Your task to perform on an android device: toggle javascript in the chrome app Image 0: 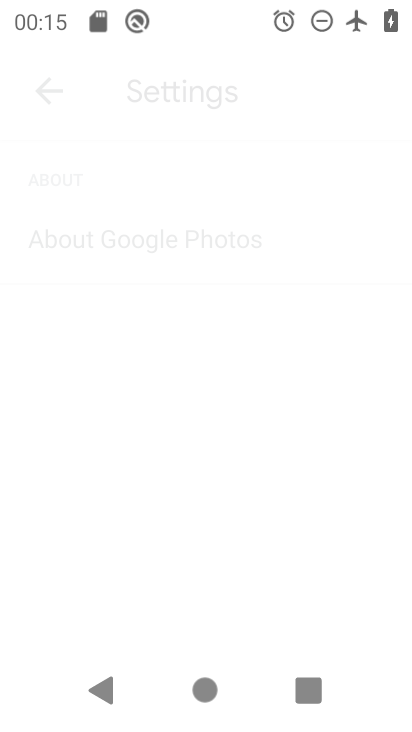
Step 0: drag from (239, 510) to (244, 173)
Your task to perform on an android device: toggle javascript in the chrome app Image 1: 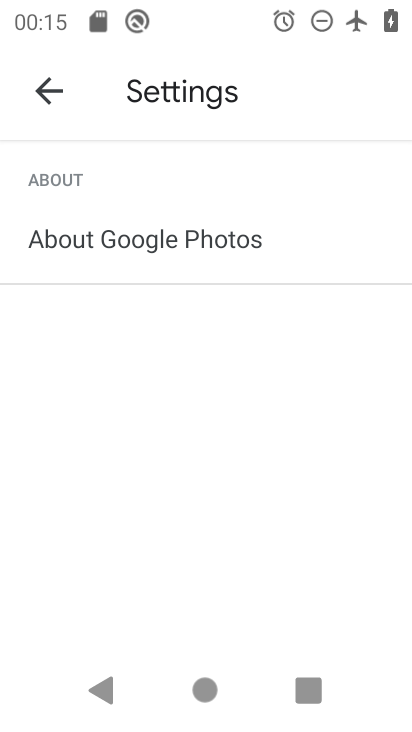
Step 1: press home button
Your task to perform on an android device: toggle javascript in the chrome app Image 2: 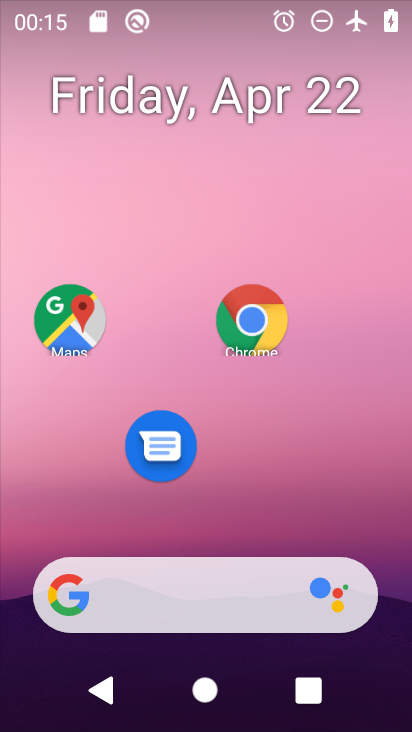
Step 2: drag from (241, 500) to (271, 143)
Your task to perform on an android device: toggle javascript in the chrome app Image 3: 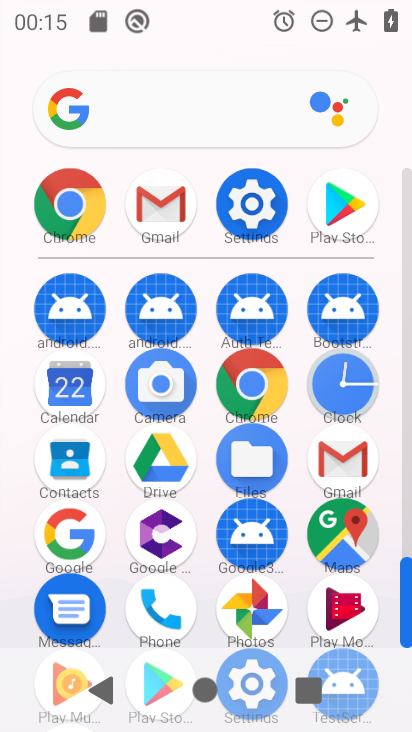
Step 3: click (241, 376)
Your task to perform on an android device: toggle javascript in the chrome app Image 4: 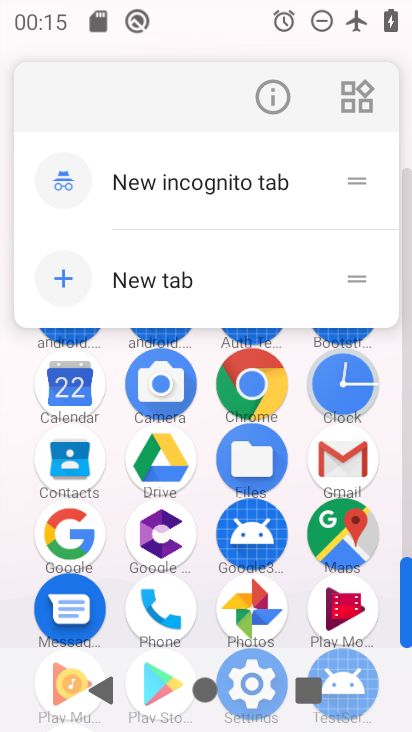
Step 4: click (267, 94)
Your task to perform on an android device: toggle javascript in the chrome app Image 5: 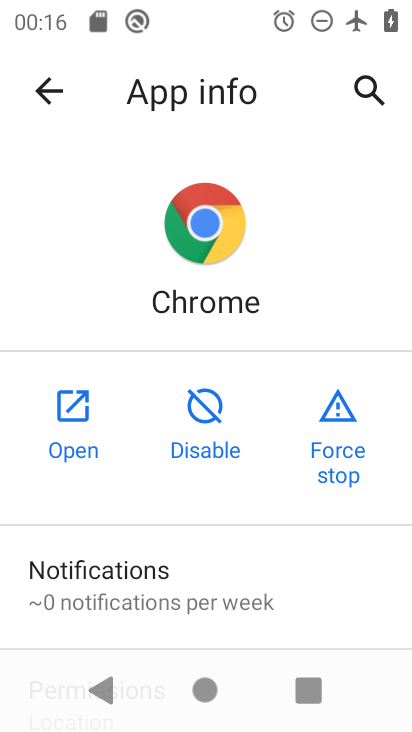
Step 5: drag from (32, 433) to (72, 436)
Your task to perform on an android device: toggle javascript in the chrome app Image 6: 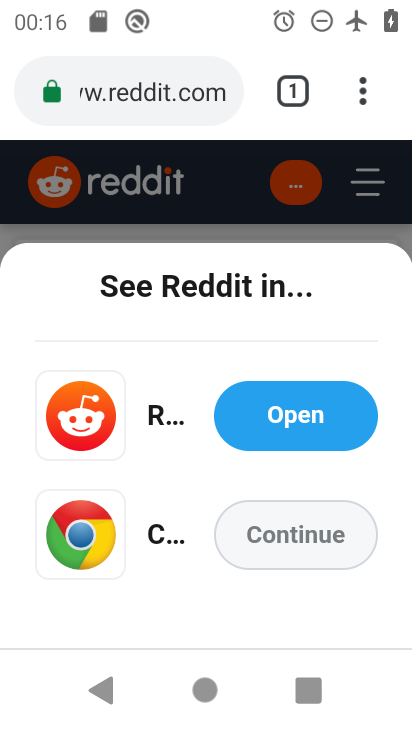
Step 6: drag from (194, 510) to (271, 2)
Your task to perform on an android device: toggle javascript in the chrome app Image 7: 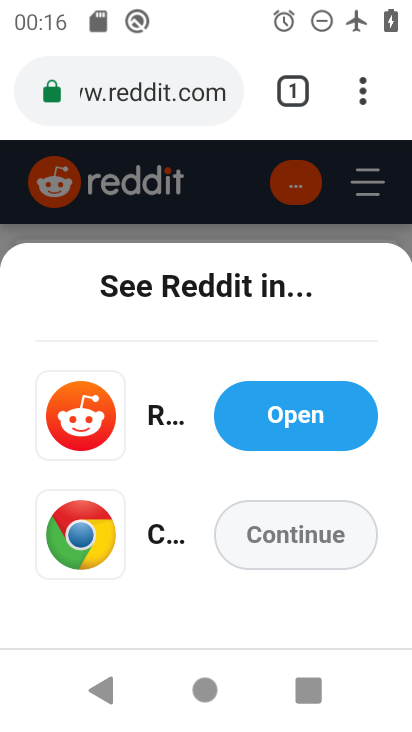
Step 7: drag from (197, 433) to (241, 231)
Your task to perform on an android device: toggle javascript in the chrome app Image 8: 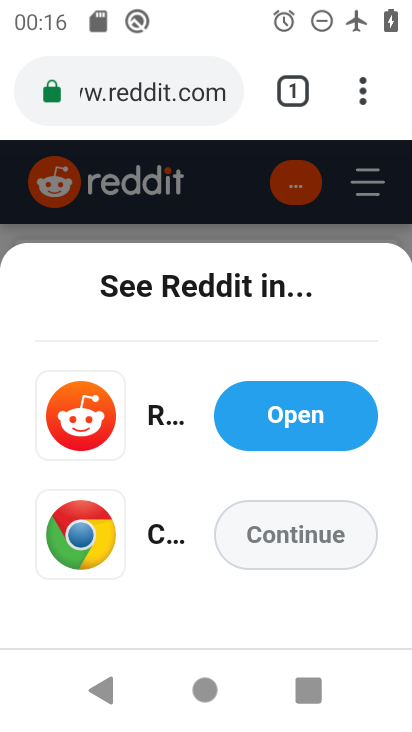
Step 8: drag from (359, 84) to (162, 468)
Your task to perform on an android device: toggle javascript in the chrome app Image 9: 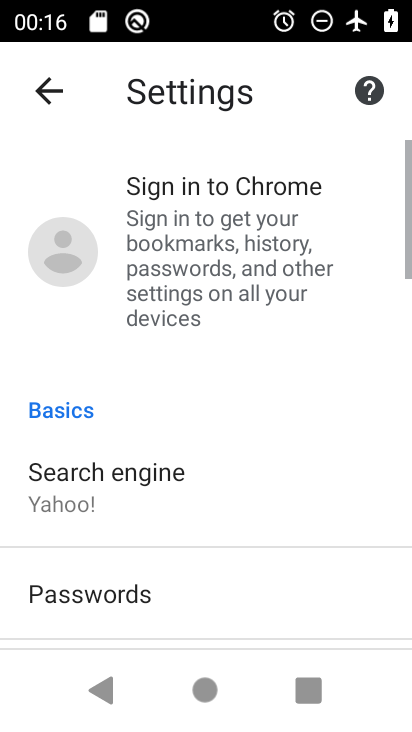
Step 9: drag from (162, 468) to (320, 29)
Your task to perform on an android device: toggle javascript in the chrome app Image 10: 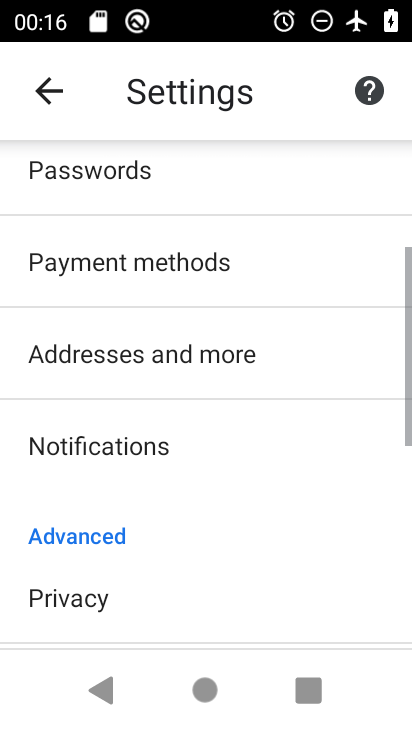
Step 10: drag from (141, 521) to (303, 69)
Your task to perform on an android device: toggle javascript in the chrome app Image 11: 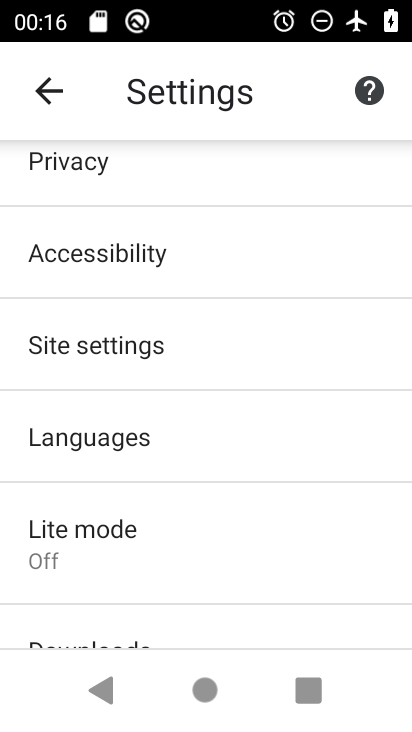
Step 11: click (167, 342)
Your task to perform on an android device: toggle javascript in the chrome app Image 12: 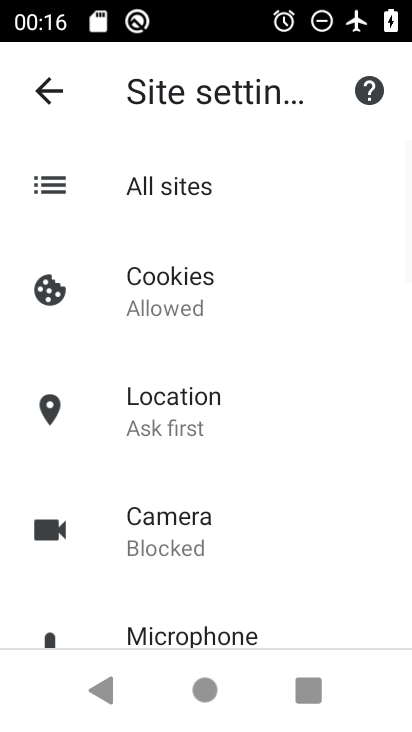
Step 12: drag from (264, 567) to (289, 8)
Your task to perform on an android device: toggle javascript in the chrome app Image 13: 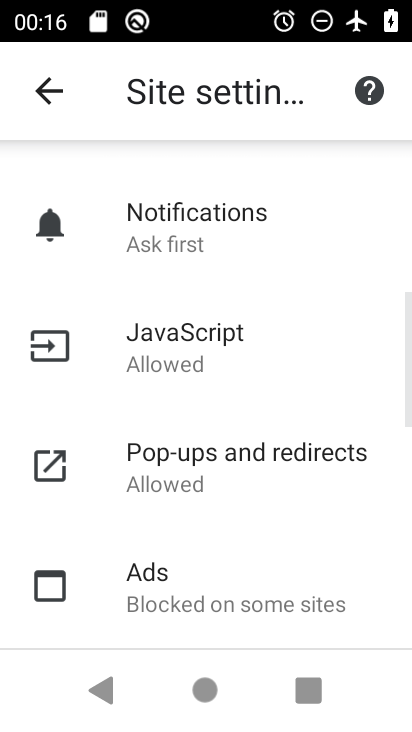
Step 13: click (207, 342)
Your task to perform on an android device: toggle javascript in the chrome app Image 14: 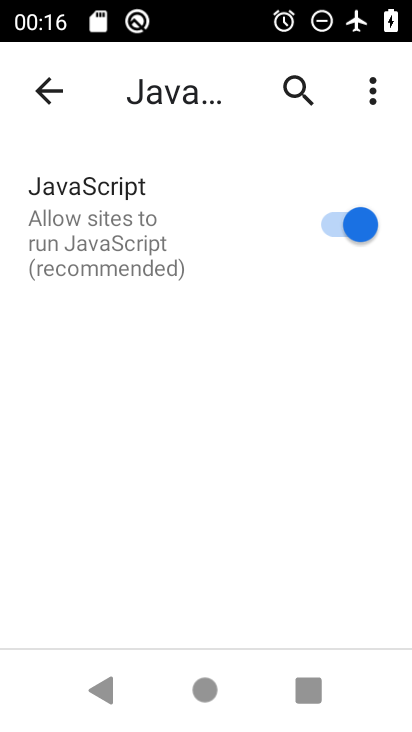
Step 14: click (331, 230)
Your task to perform on an android device: toggle javascript in the chrome app Image 15: 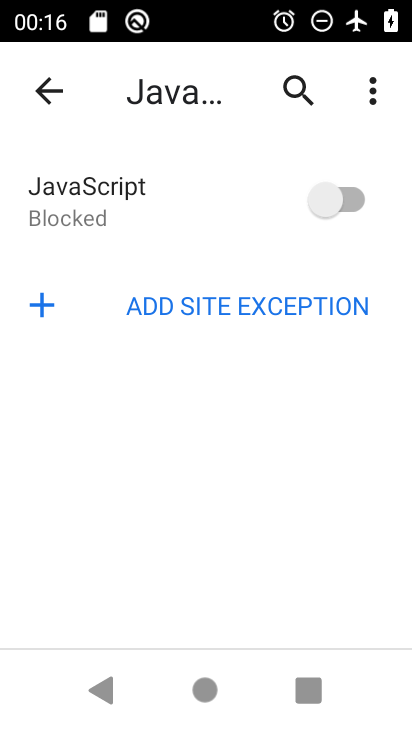
Step 15: task complete